Your task to perform on an android device: Open Google Maps and go to "Timeline" Image 0: 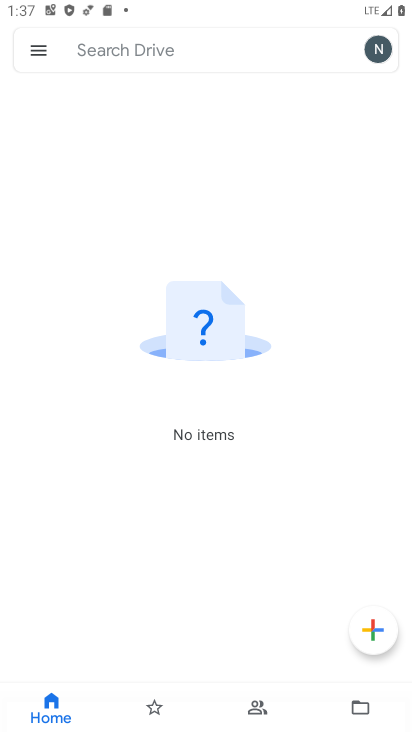
Step 0: press home button
Your task to perform on an android device: Open Google Maps and go to "Timeline" Image 1: 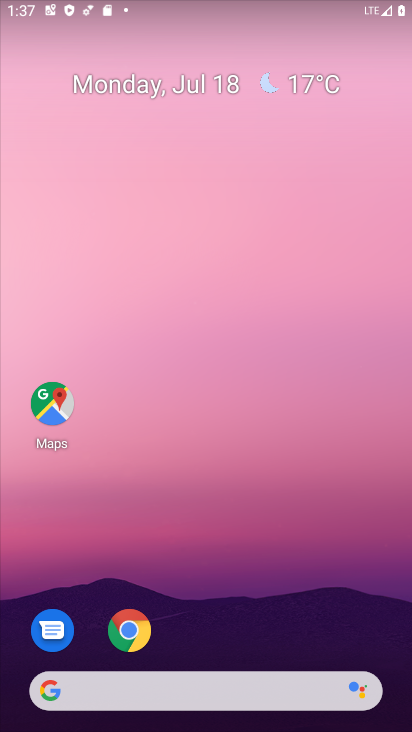
Step 1: click (54, 405)
Your task to perform on an android device: Open Google Maps and go to "Timeline" Image 2: 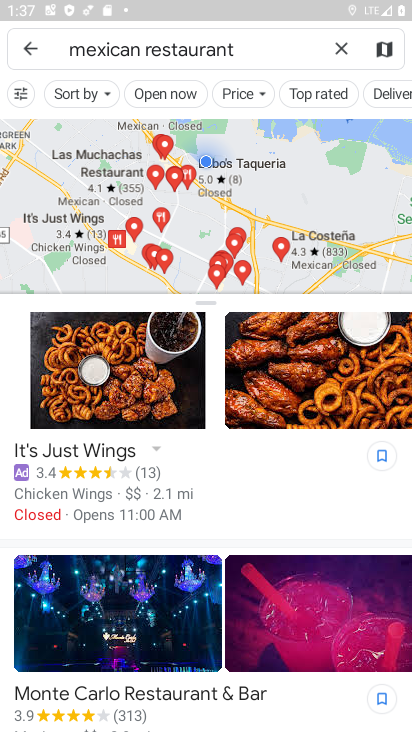
Step 2: click (342, 44)
Your task to perform on an android device: Open Google Maps and go to "Timeline" Image 3: 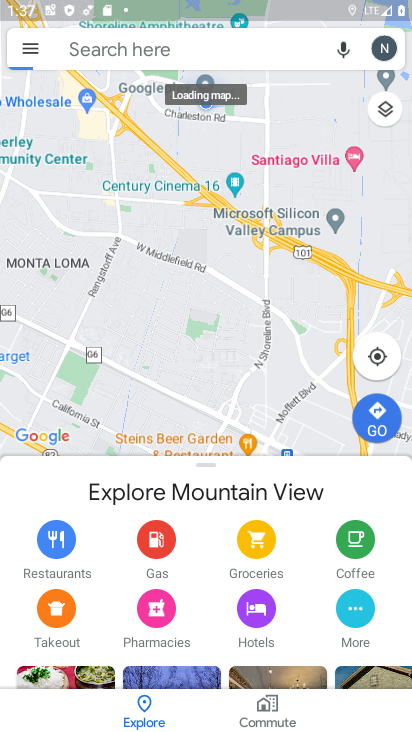
Step 3: click (34, 48)
Your task to perform on an android device: Open Google Maps and go to "Timeline" Image 4: 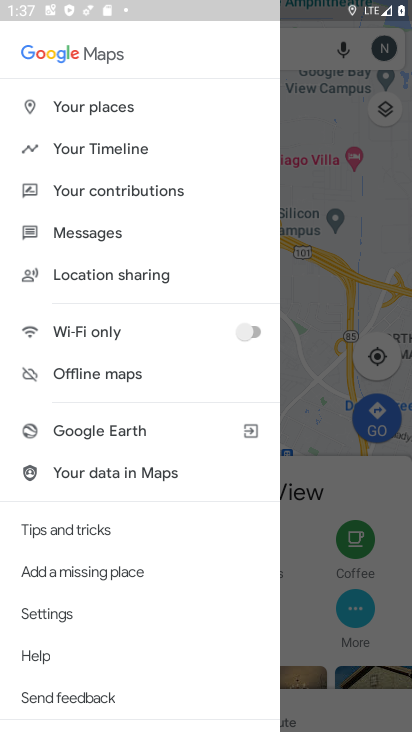
Step 4: click (98, 148)
Your task to perform on an android device: Open Google Maps and go to "Timeline" Image 5: 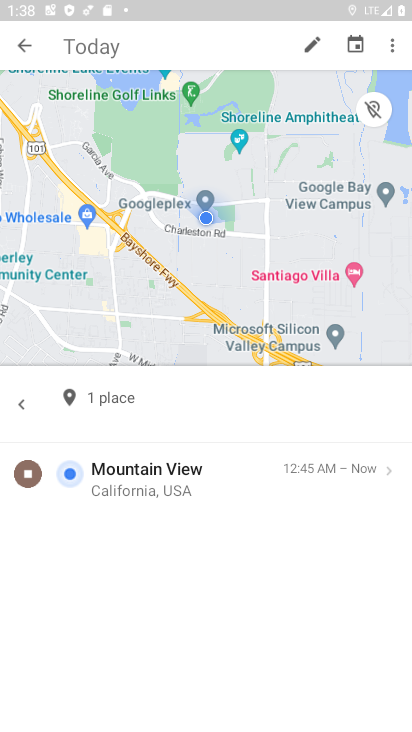
Step 5: task complete